Your task to perform on an android device: Open the phone app and click the voicemail tab. Image 0: 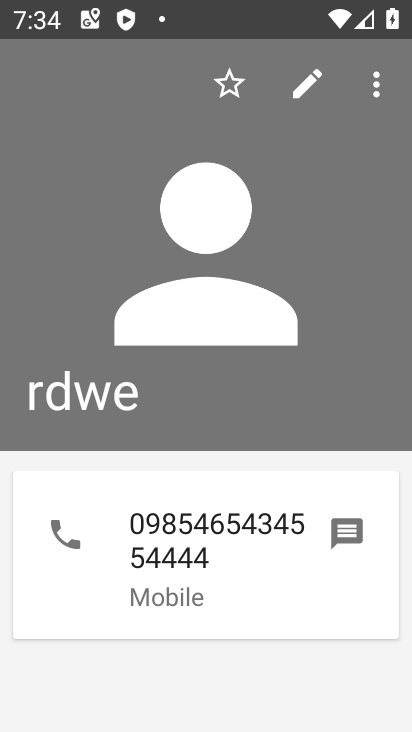
Step 0: press home button
Your task to perform on an android device: Open the phone app and click the voicemail tab. Image 1: 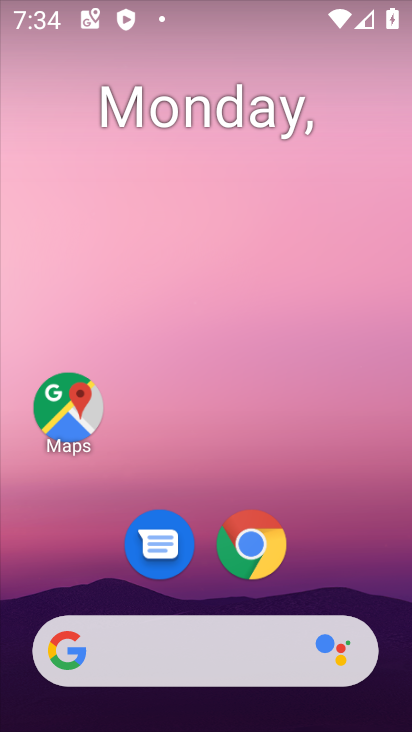
Step 1: drag from (330, 525) to (234, 27)
Your task to perform on an android device: Open the phone app and click the voicemail tab. Image 2: 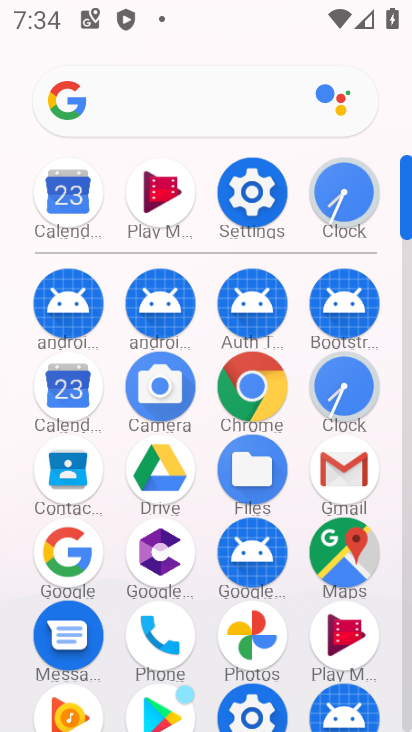
Step 2: click (329, 639)
Your task to perform on an android device: Open the phone app and click the voicemail tab. Image 3: 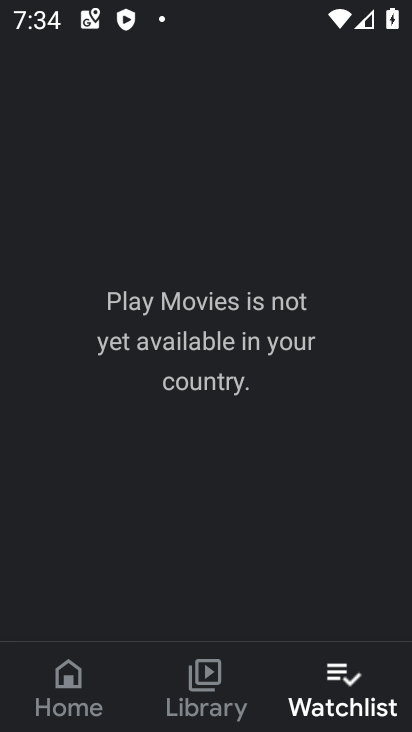
Step 3: click (329, 671)
Your task to perform on an android device: Open the phone app and click the voicemail tab. Image 4: 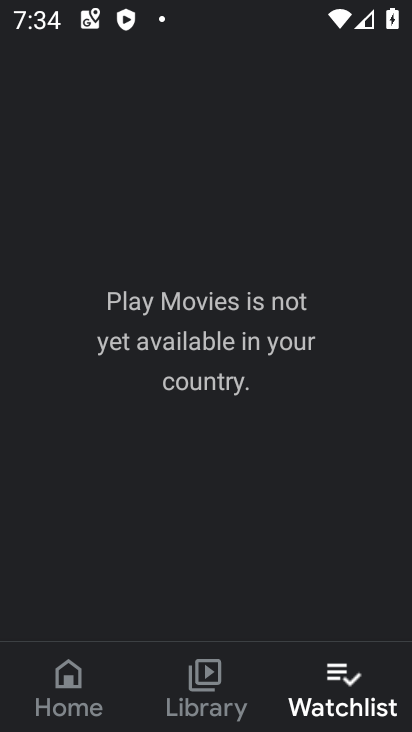
Step 4: task complete